Your task to perform on an android device: open a bookmark in the chrome app Image 0: 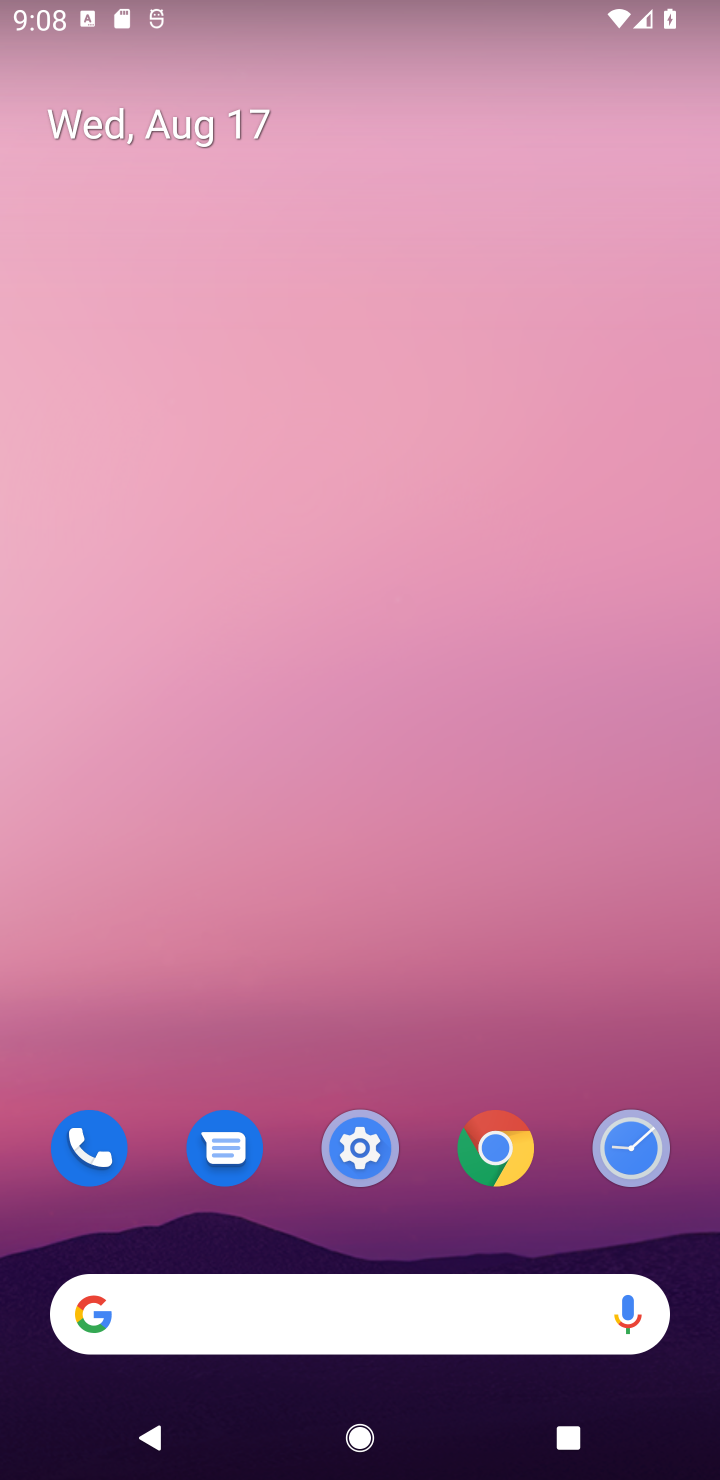
Step 0: click (502, 1151)
Your task to perform on an android device: open a bookmark in the chrome app Image 1: 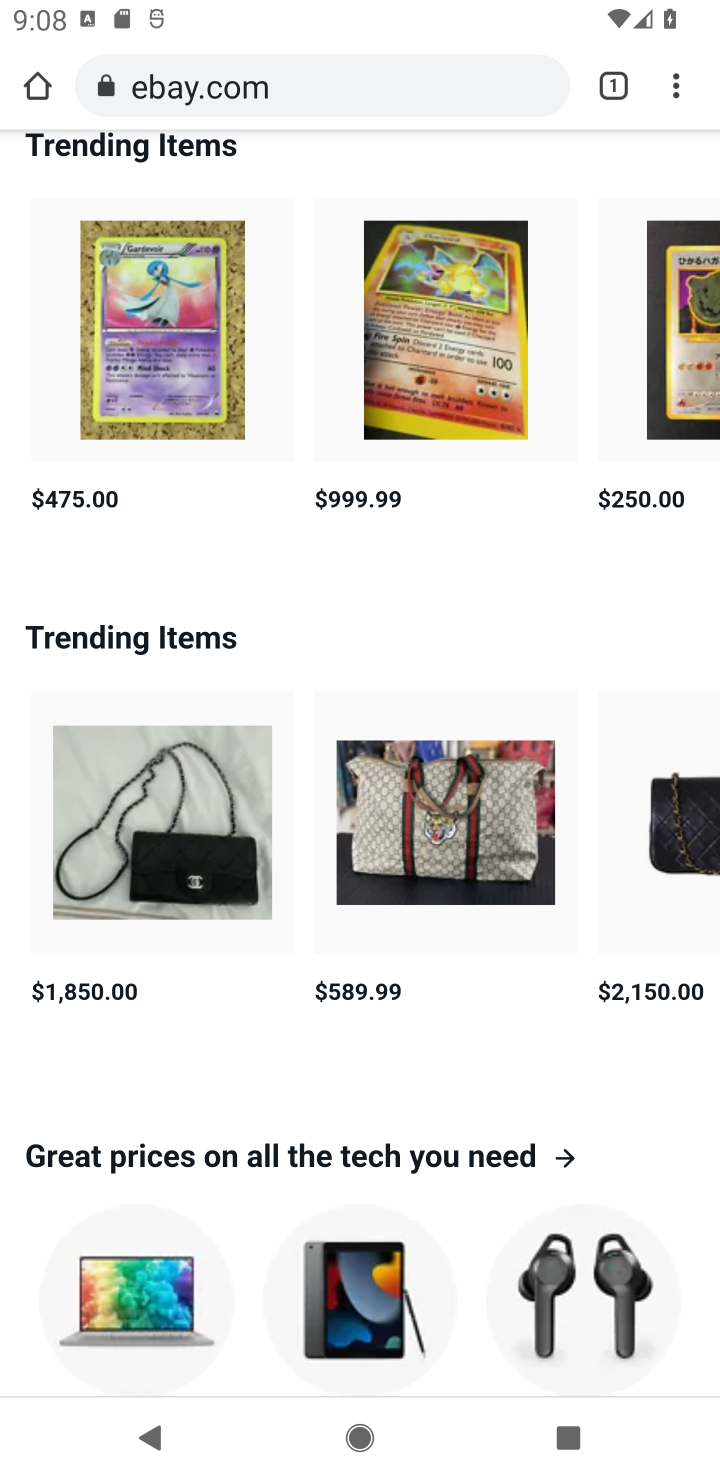
Step 1: click (671, 94)
Your task to perform on an android device: open a bookmark in the chrome app Image 2: 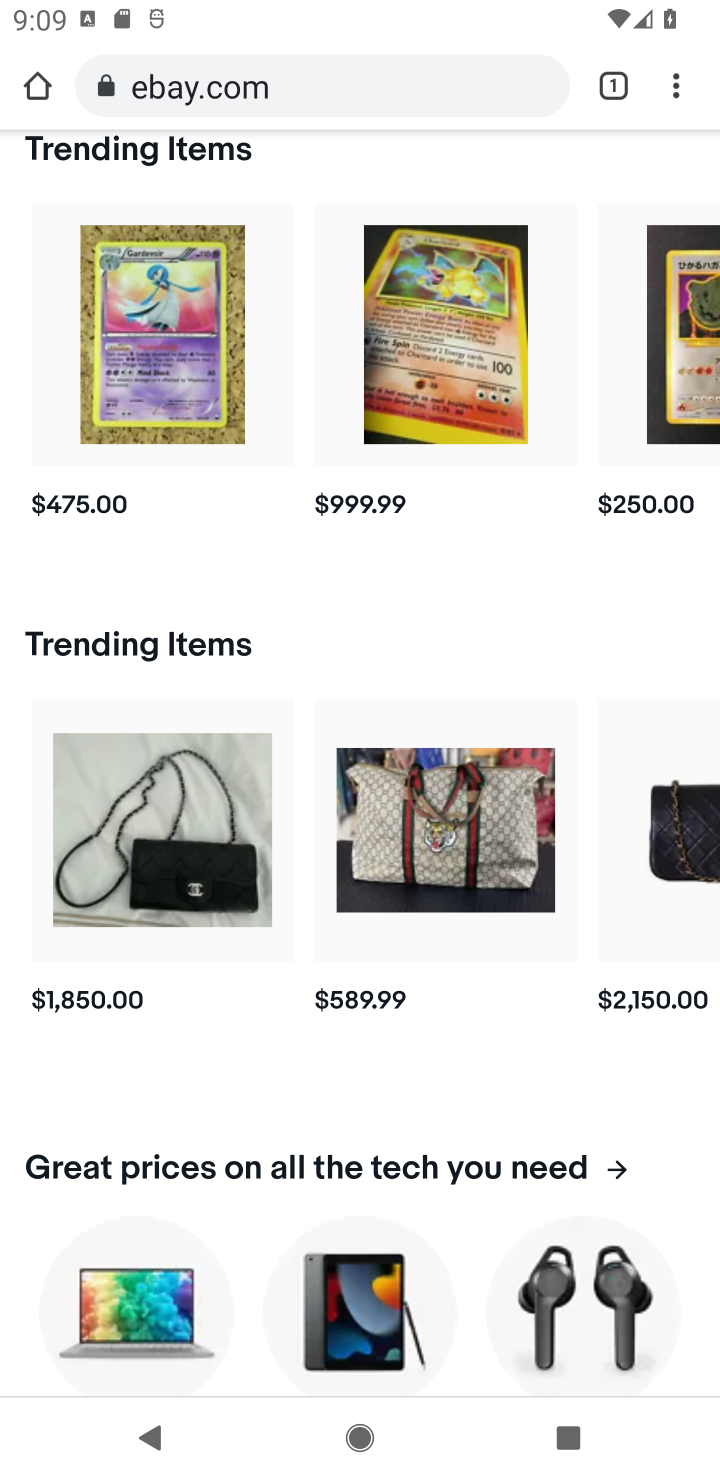
Step 2: click (669, 103)
Your task to perform on an android device: open a bookmark in the chrome app Image 3: 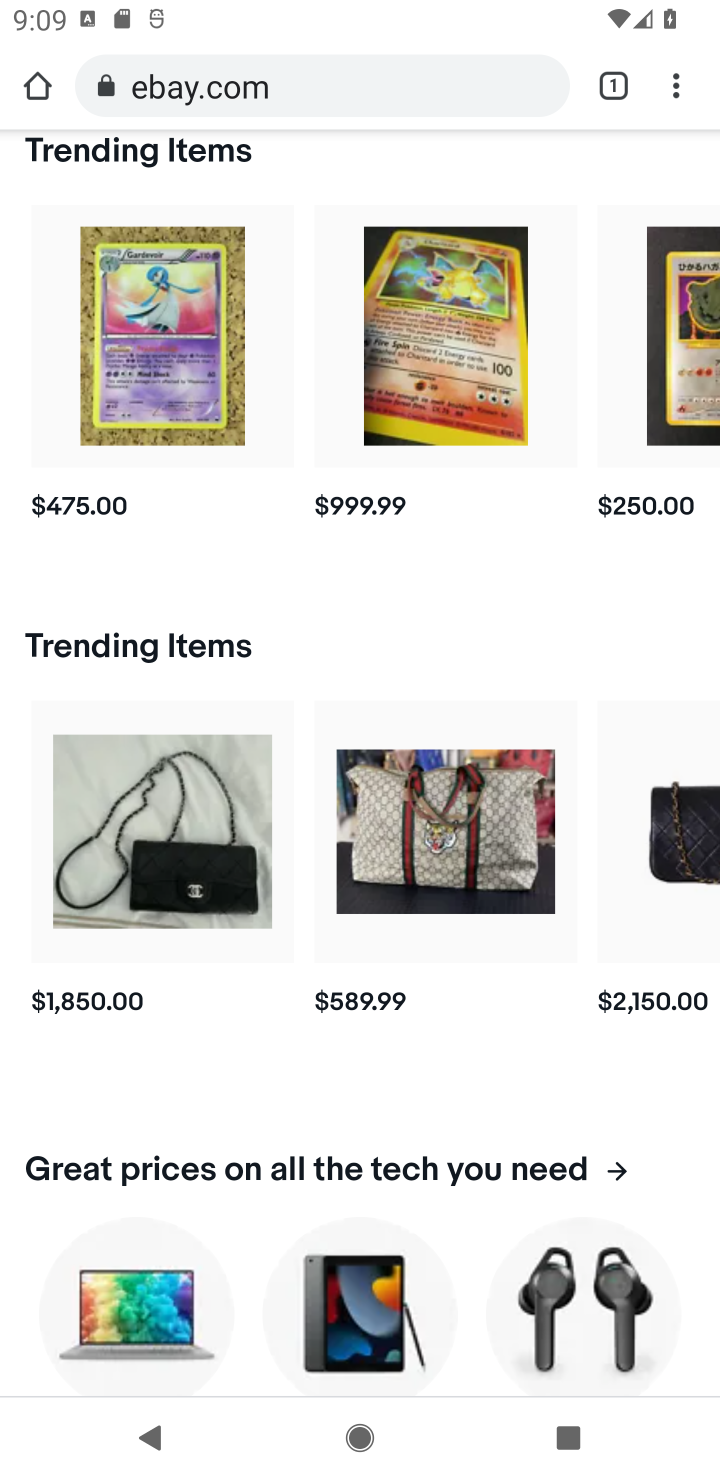
Step 3: click (667, 98)
Your task to perform on an android device: open a bookmark in the chrome app Image 4: 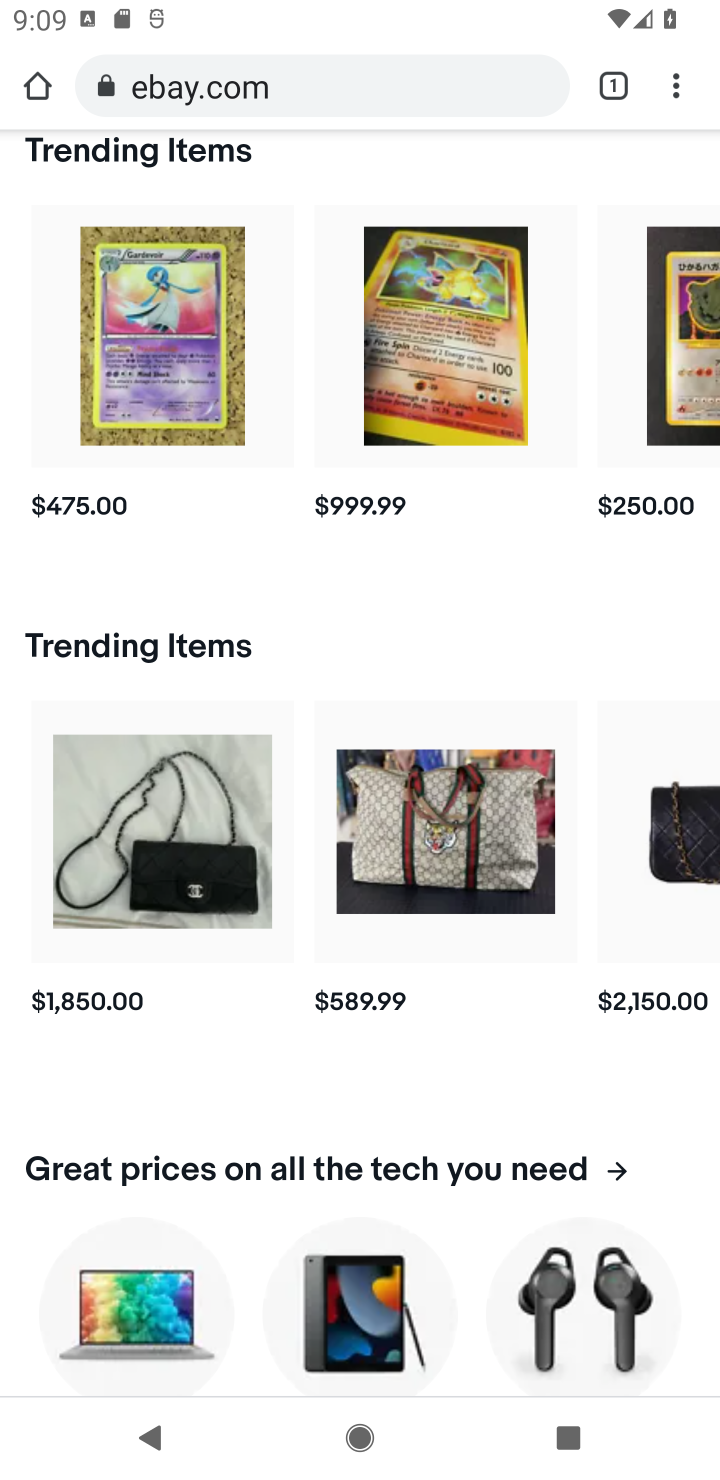
Step 4: click (661, 99)
Your task to perform on an android device: open a bookmark in the chrome app Image 5: 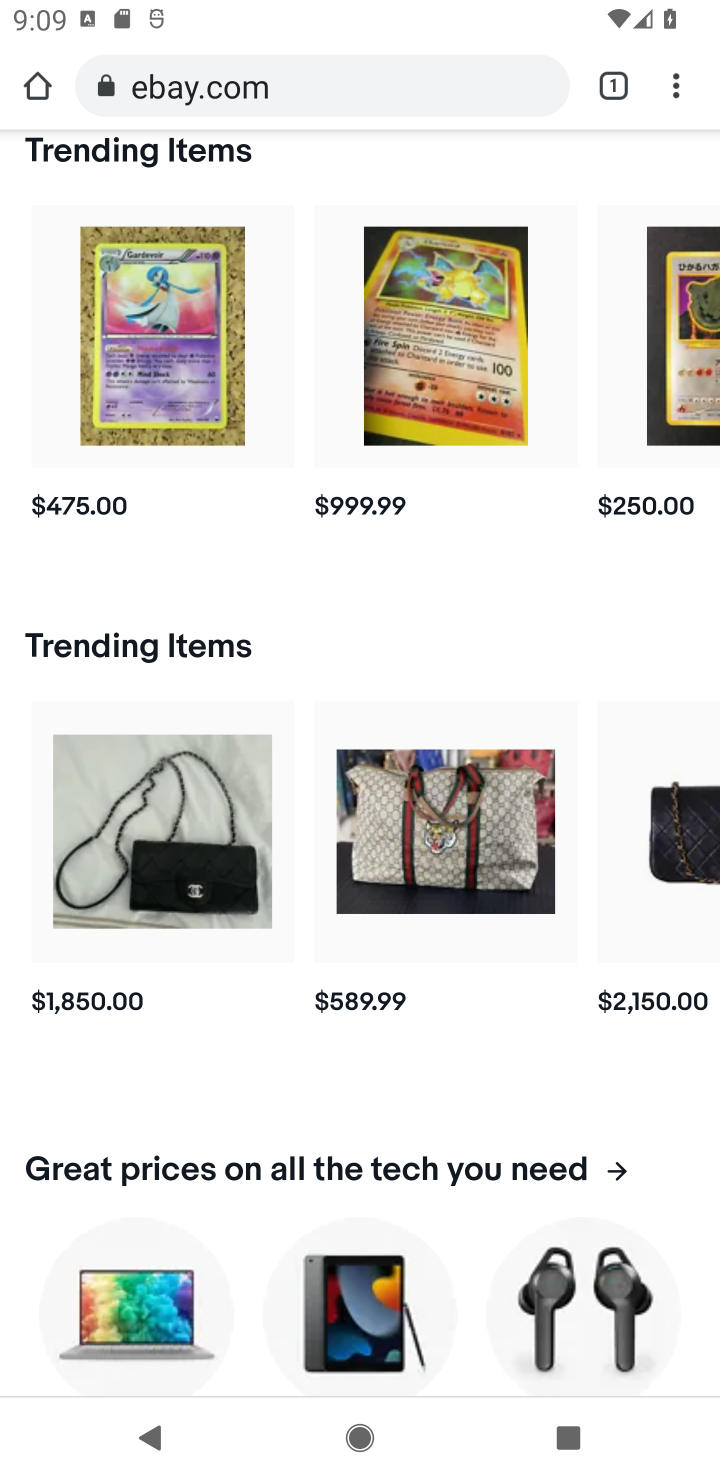
Step 5: click (665, 98)
Your task to perform on an android device: open a bookmark in the chrome app Image 6: 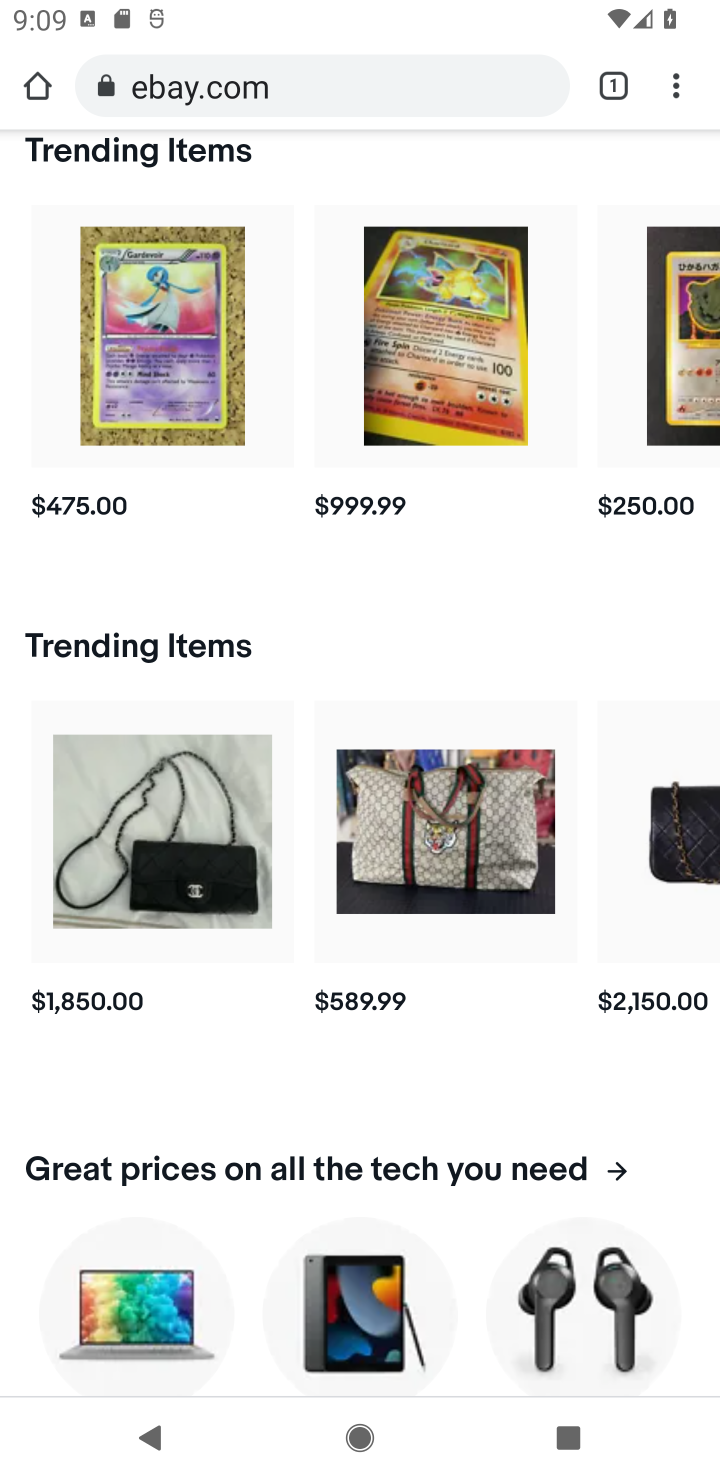
Step 6: click (674, 98)
Your task to perform on an android device: open a bookmark in the chrome app Image 7: 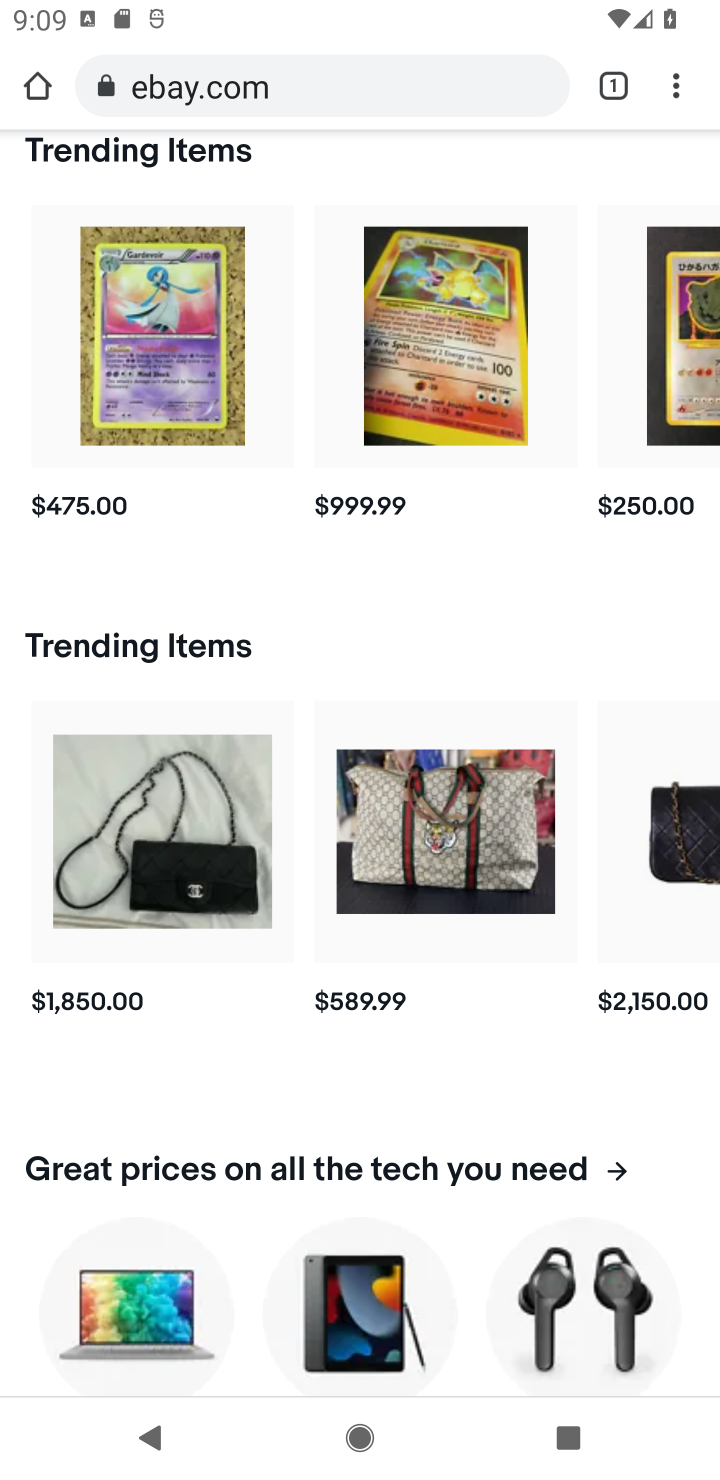
Step 7: click (674, 98)
Your task to perform on an android device: open a bookmark in the chrome app Image 8: 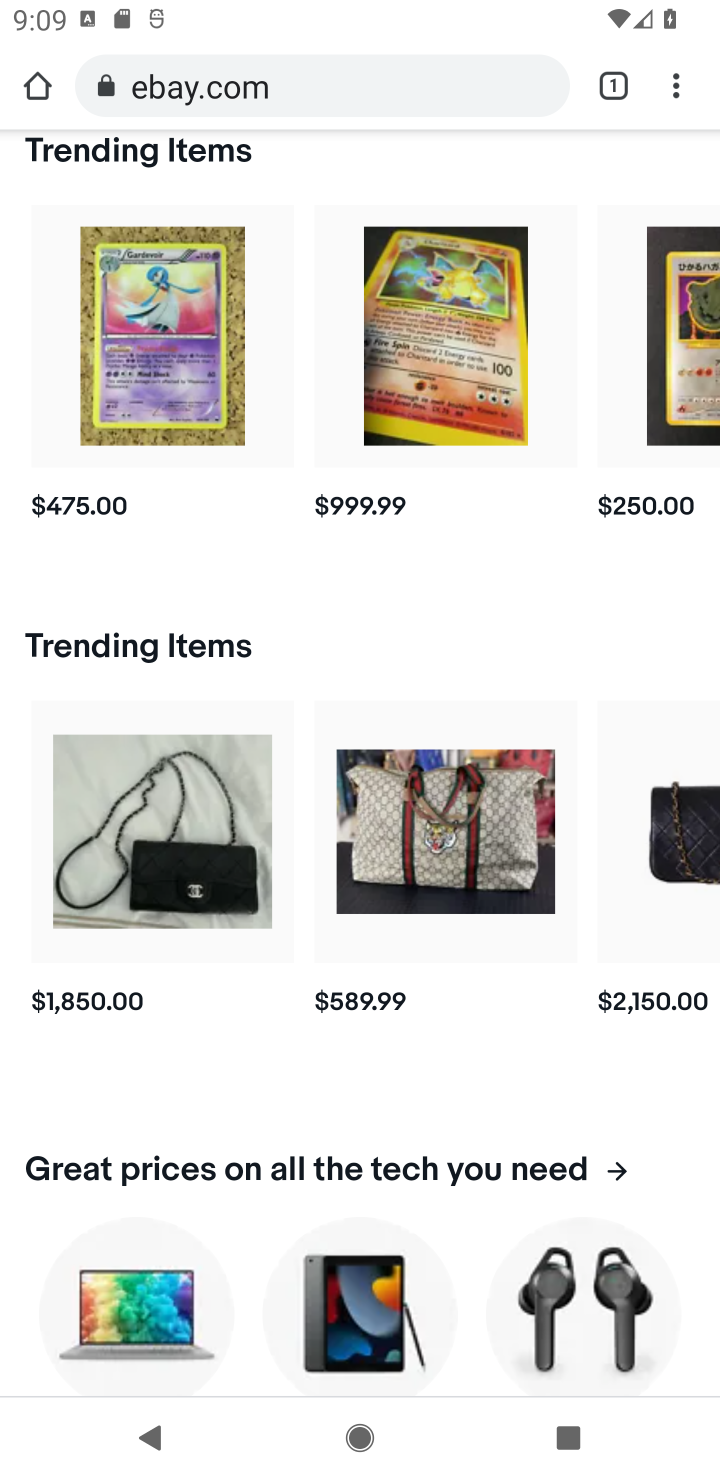
Step 8: click (662, 105)
Your task to perform on an android device: open a bookmark in the chrome app Image 9: 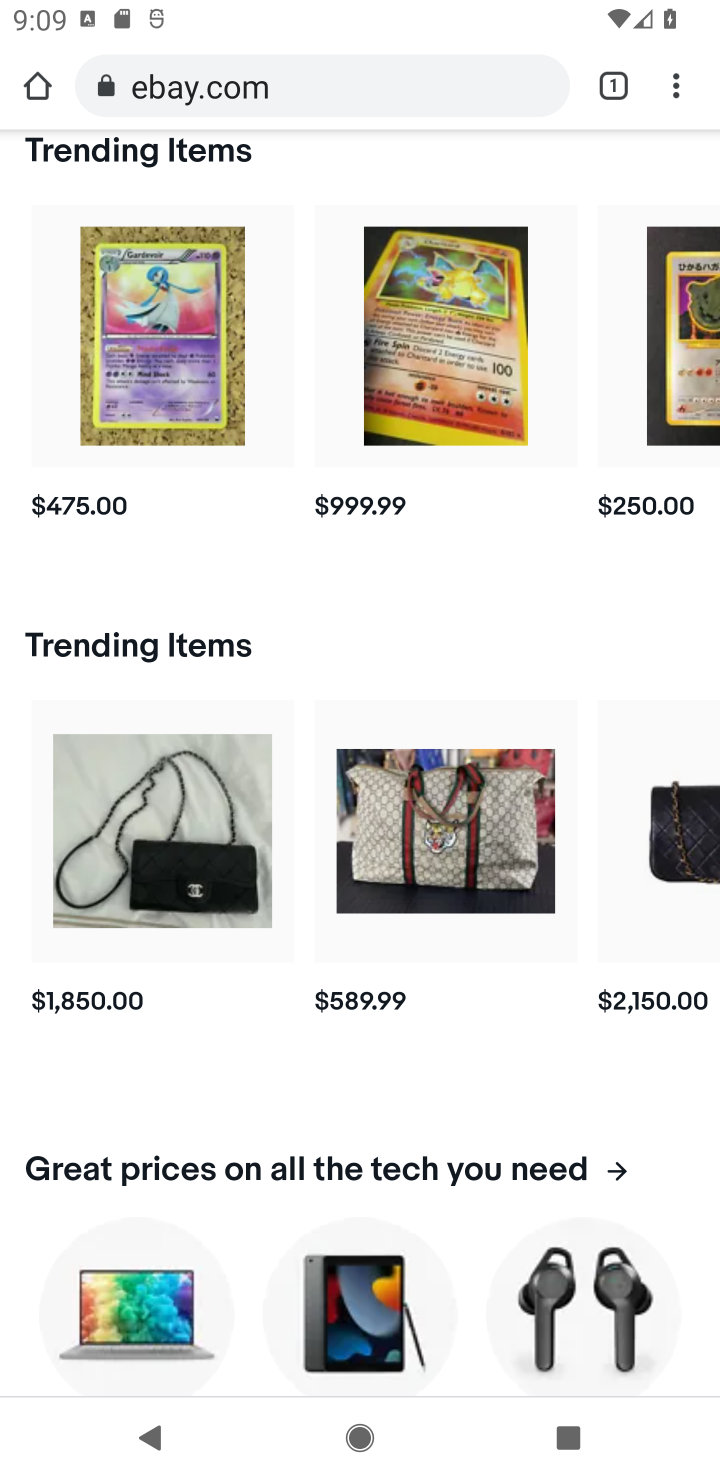
Step 9: click (665, 94)
Your task to perform on an android device: open a bookmark in the chrome app Image 10: 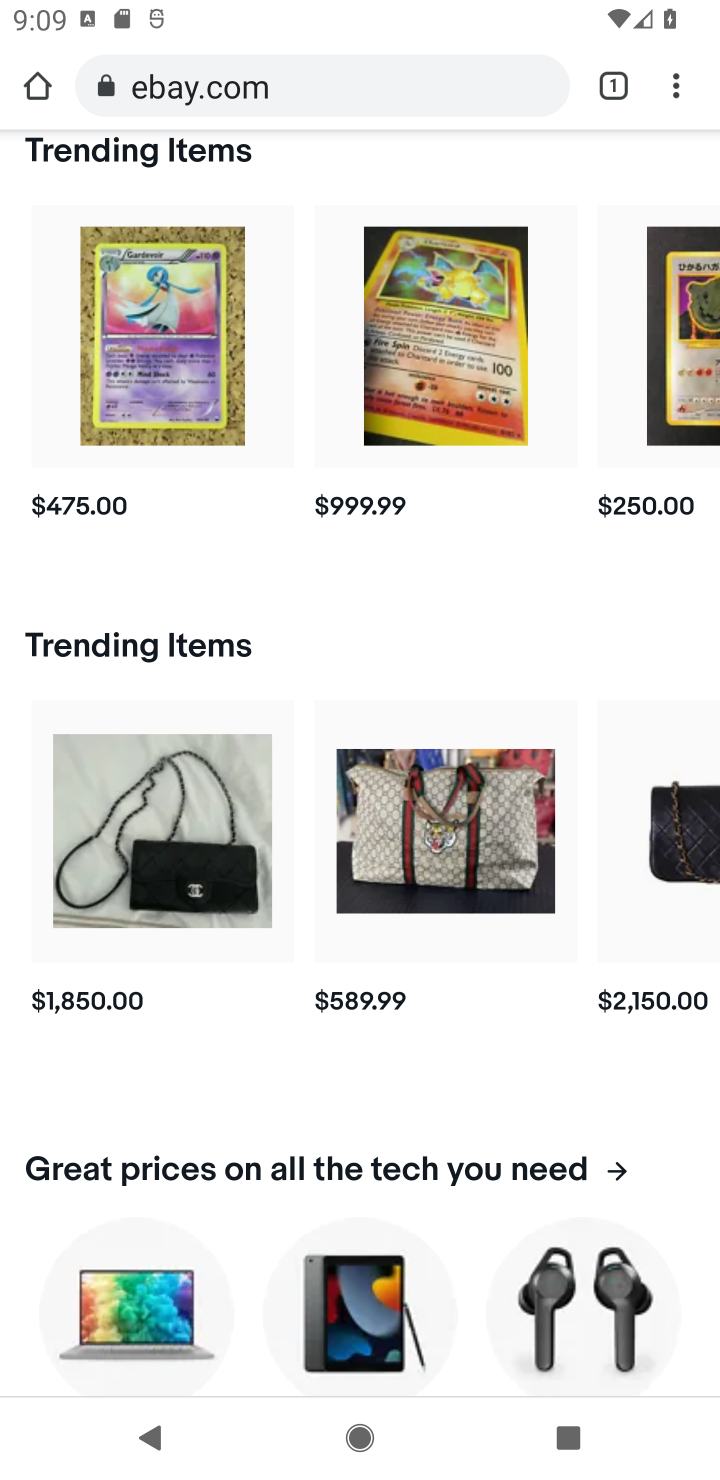
Step 10: click (665, 94)
Your task to perform on an android device: open a bookmark in the chrome app Image 11: 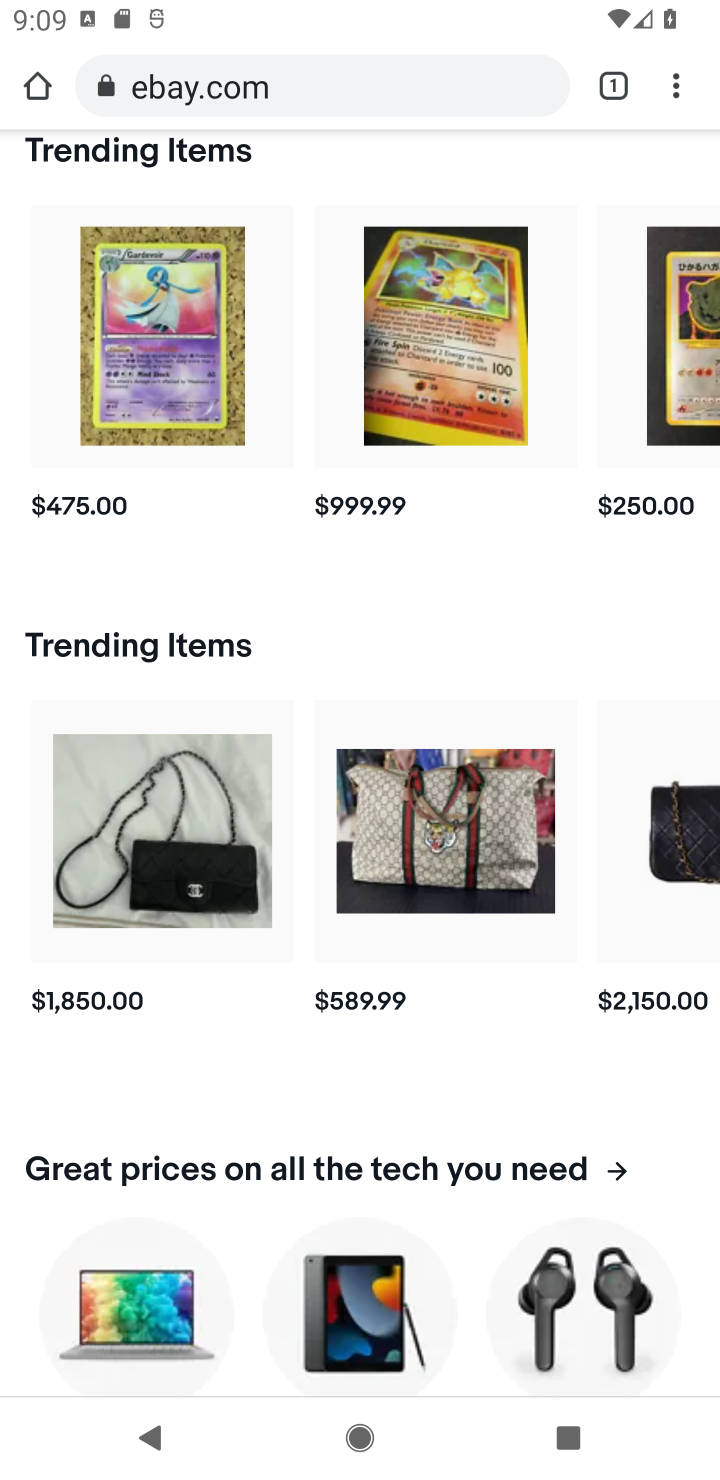
Step 11: click (665, 94)
Your task to perform on an android device: open a bookmark in the chrome app Image 12: 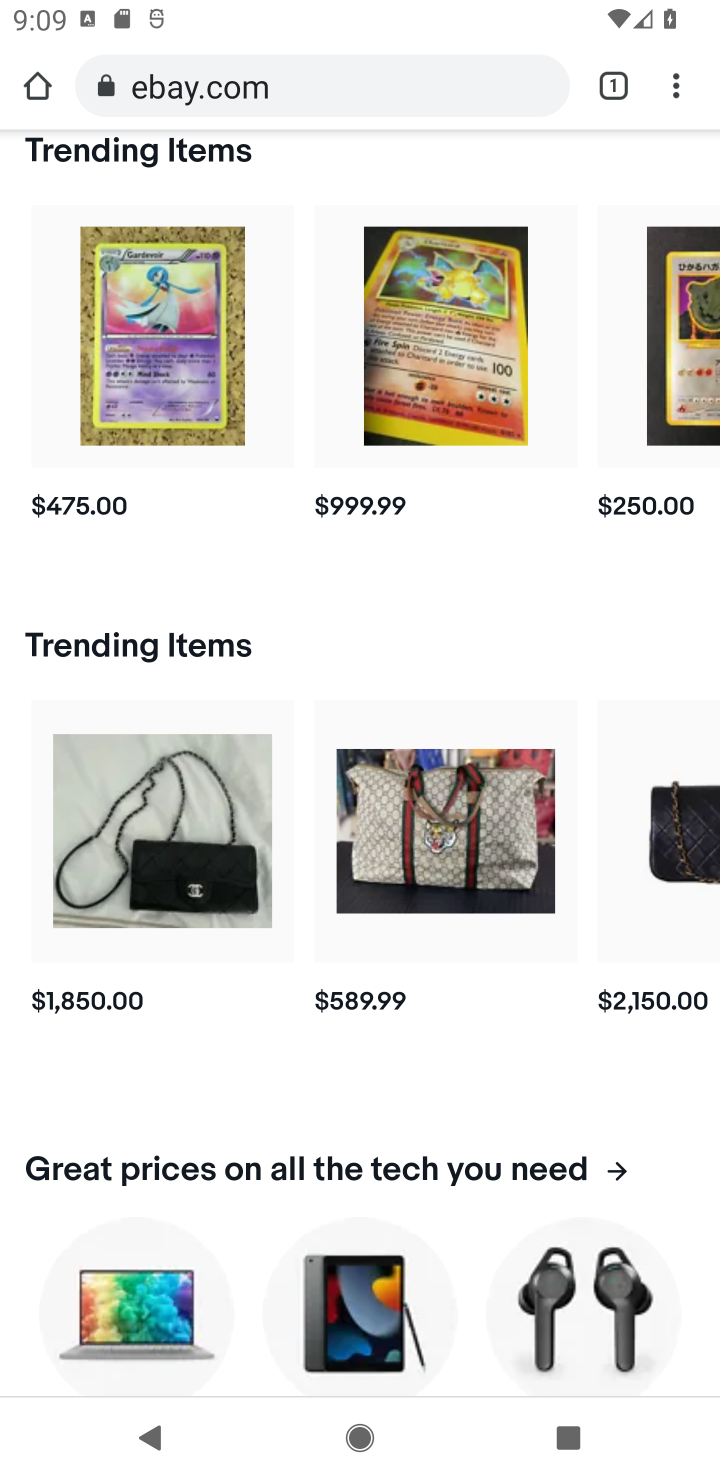
Step 12: click (666, 94)
Your task to perform on an android device: open a bookmark in the chrome app Image 13: 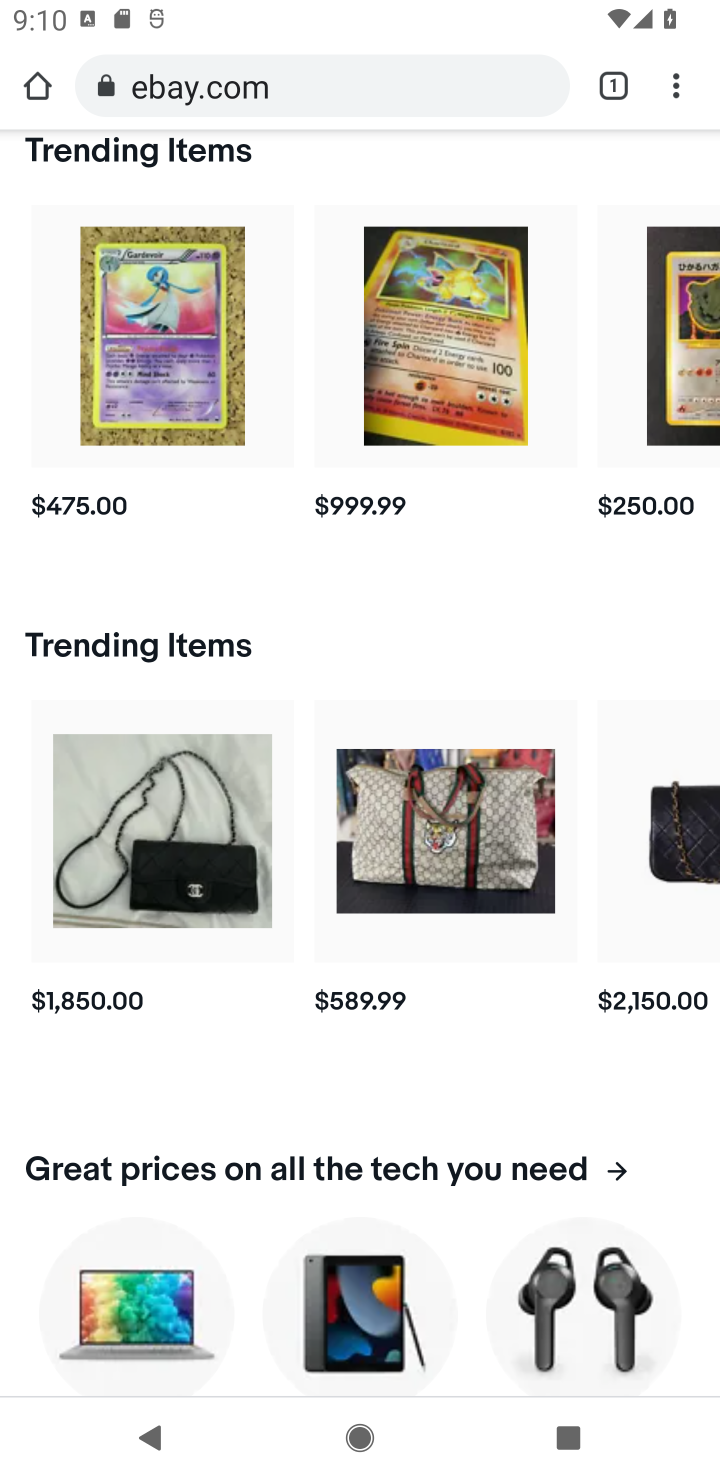
Step 13: task complete